Your task to perform on an android device: add a label to a message in the gmail app Image 0: 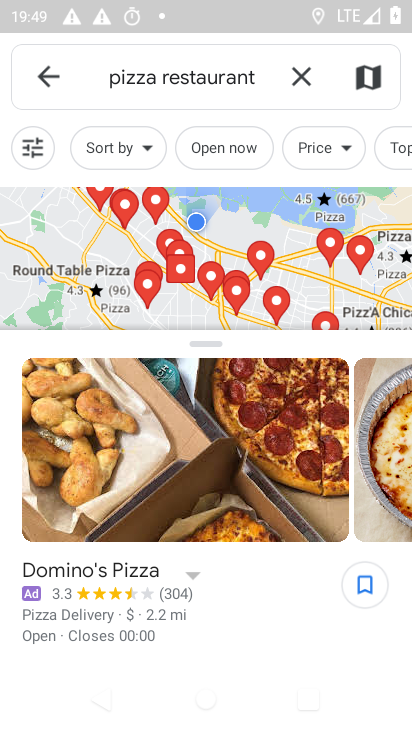
Step 0: press home button
Your task to perform on an android device: add a label to a message in the gmail app Image 1: 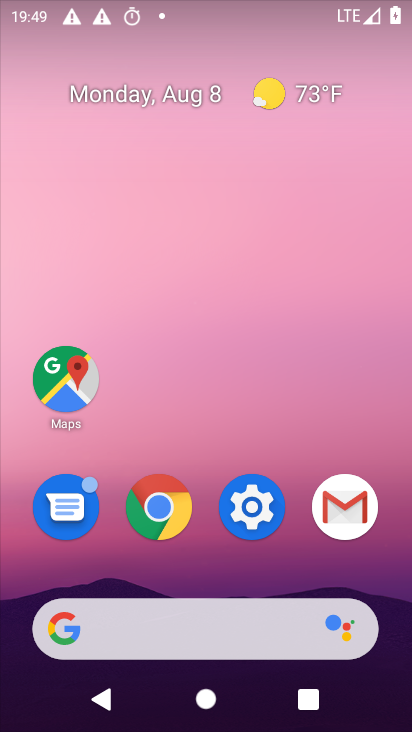
Step 1: click (334, 527)
Your task to perform on an android device: add a label to a message in the gmail app Image 2: 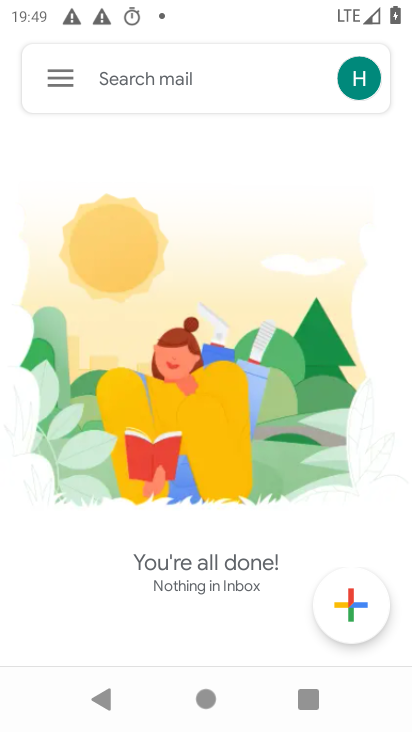
Step 2: click (67, 83)
Your task to perform on an android device: add a label to a message in the gmail app Image 3: 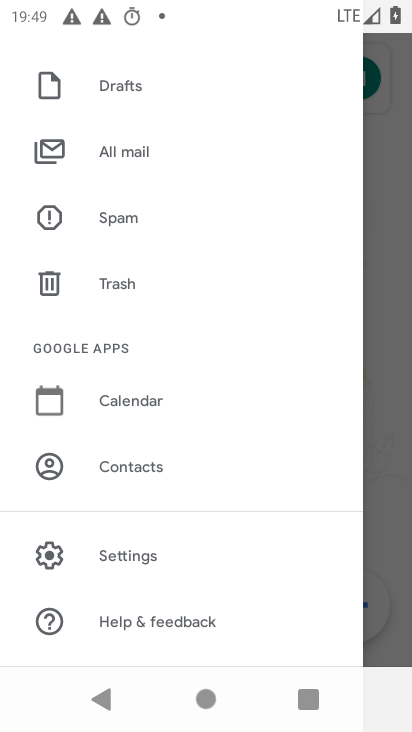
Step 3: click (117, 557)
Your task to perform on an android device: add a label to a message in the gmail app Image 4: 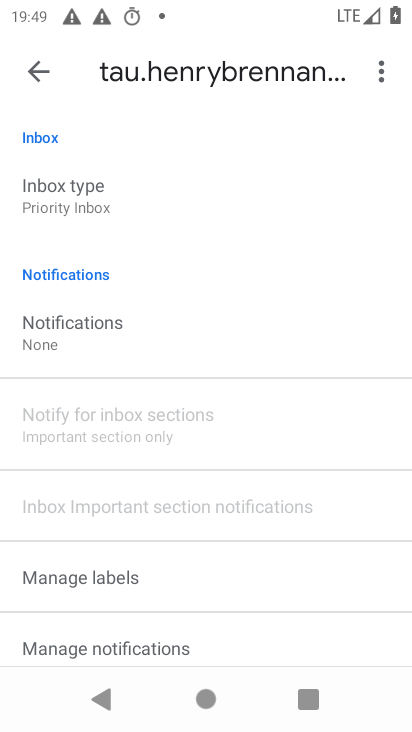
Step 4: click (92, 569)
Your task to perform on an android device: add a label to a message in the gmail app Image 5: 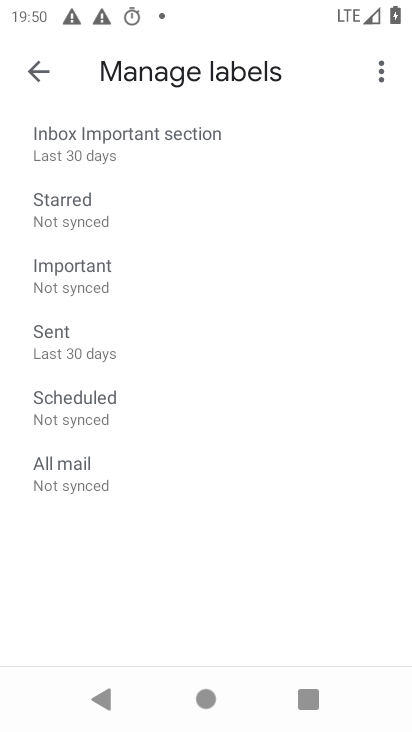
Step 5: click (86, 365)
Your task to perform on an android device: add a label to a message in the gmail app Image 6: 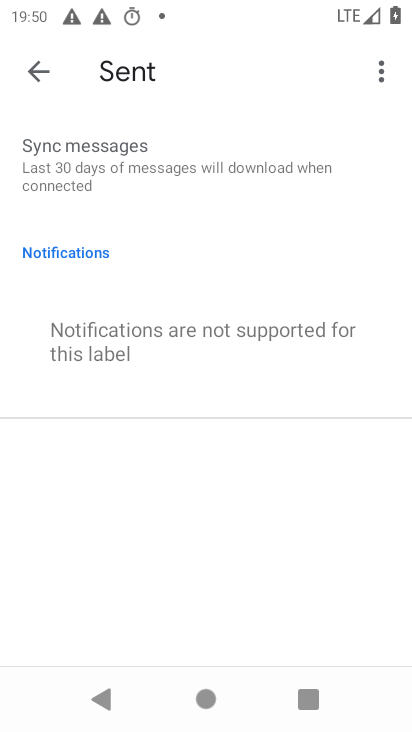
Step 6: task complete